Your task to perform on an android device: Open Chrome and go to settings Image 0: 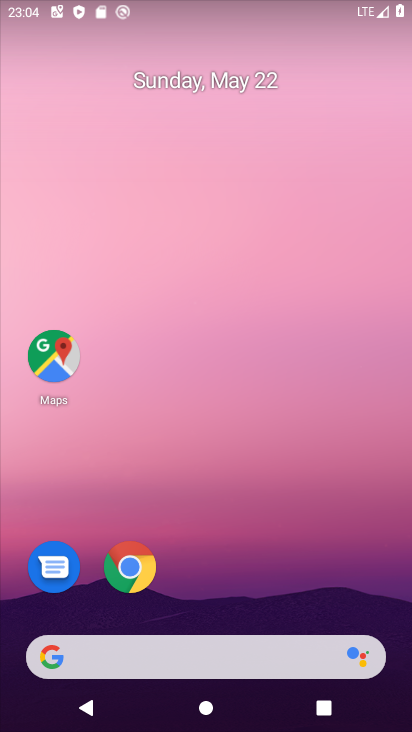
Step 0: drag from (233, 543) to (286, 0)
Your task to perform on an android device: Open Chrome and go to settings Image 1: 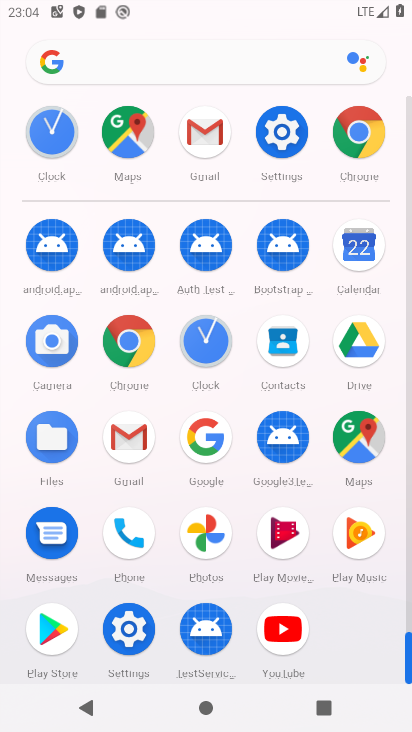
Step 1: drag from (9, 516) to (15, 218)
Your task to perform on an android device: Open Chrome and go to settings Image 2: 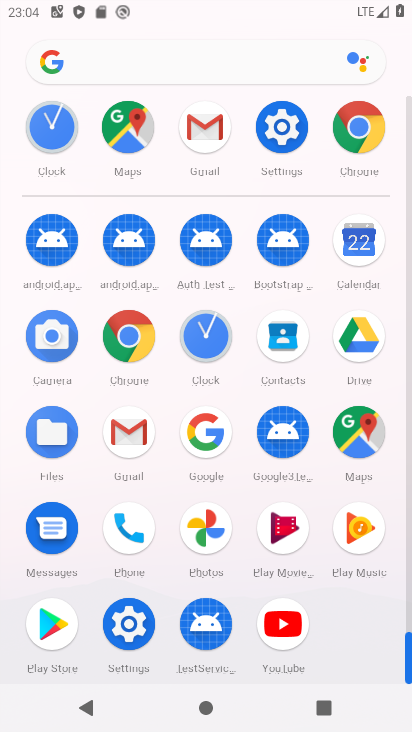
Step 2: click (358, 124)
Your task to perform on an android device: Open Chrome and go to settings Image 3: 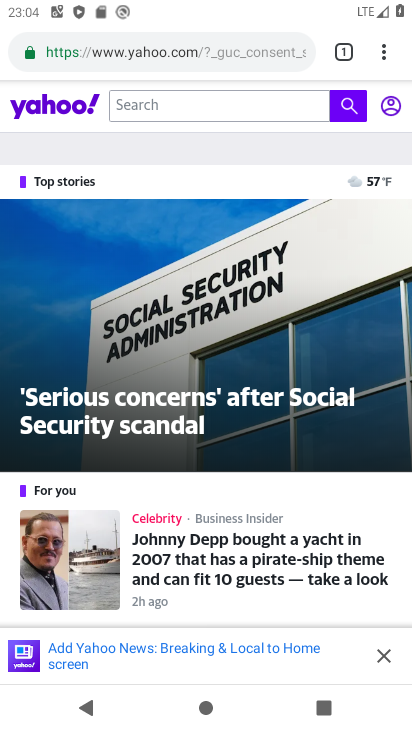
Step 3: task complete